Your task to perform on an android device: Open internet settings Image 0: 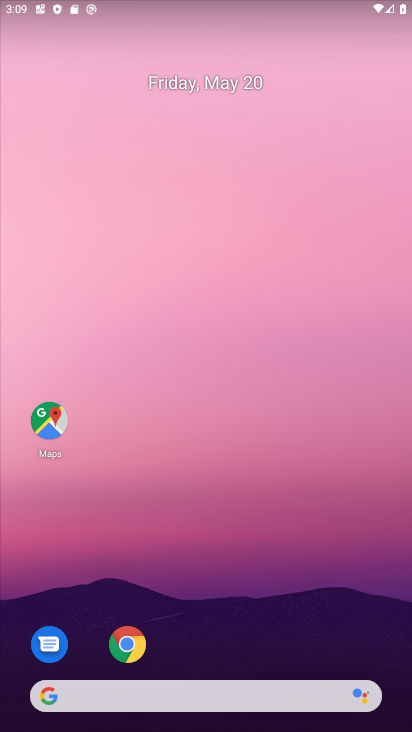
Step 0: drag from (227, 633) to (123, 14)
Your task to perform on an android device: Open internet settings Image 1: 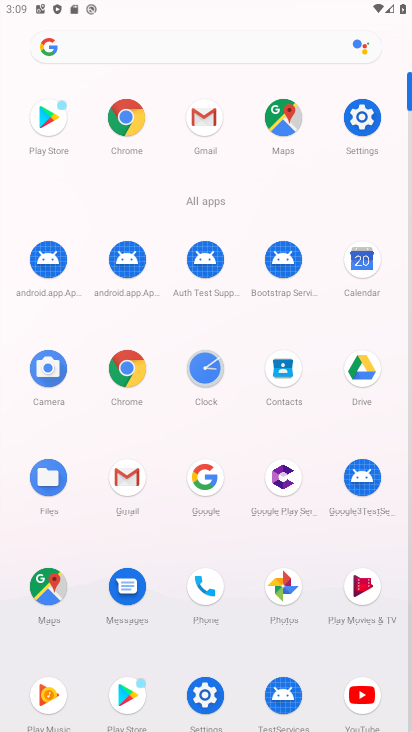
Step 1: click (364, 122)
Your task to perform on an android device: Open internet settings Image 2: 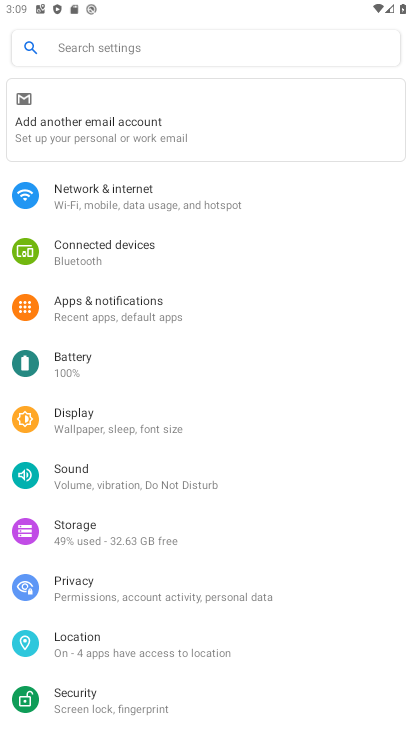
Step 2: click (255, 192)
Your task to perform on an android device: Open internet settings Image 3: 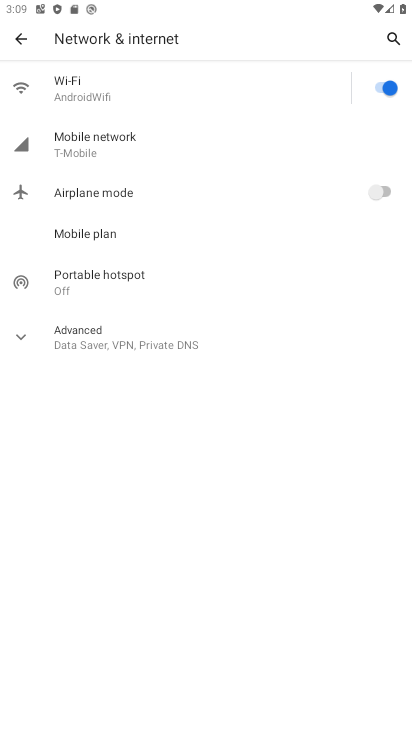
Step 3: task complete